Your task to perform on an android device: toggle airplane mode Image 0: 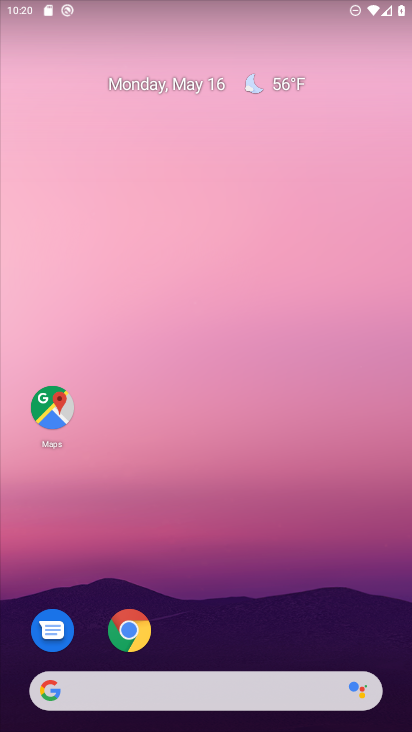
Step 0: drag from (230, 634) to (267, 47)
Your task to perform on an android device: toggle airplane mode Image 1: 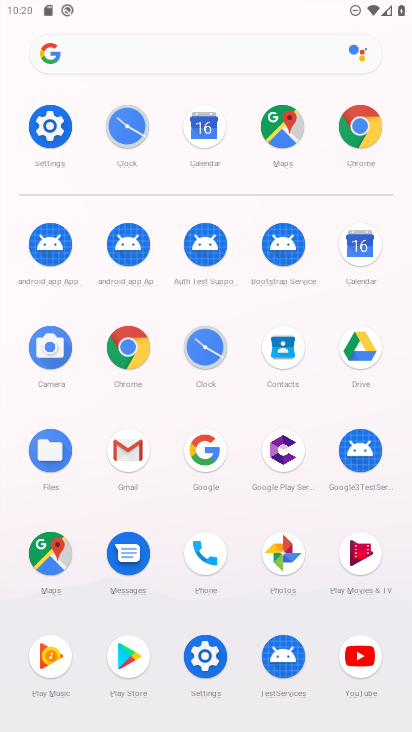
Step 1: click (63, 132)
Your task to perform on an android device: toggle airplane mode Image 2: 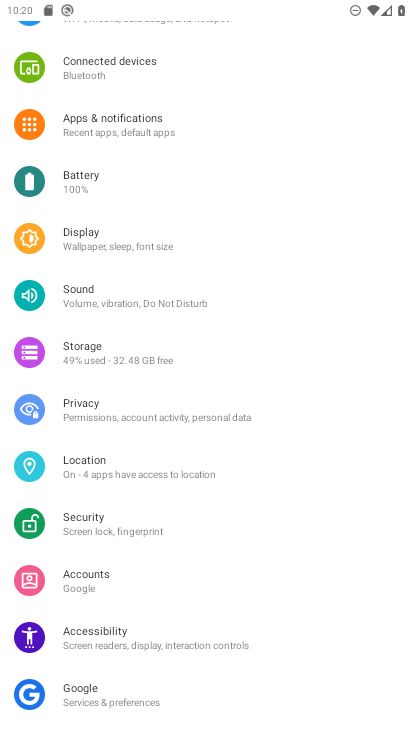
Step 2: drag from (134, 64) to (132, 277)
Your task to perform on an android device: toggle airplane mode Image 3: 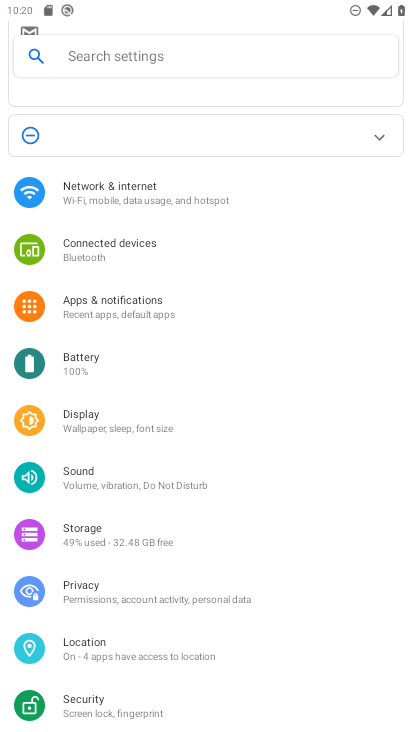
Step 3: click (119, 196)
Your task to perform on an android device: toggle airplane mode Image 4: 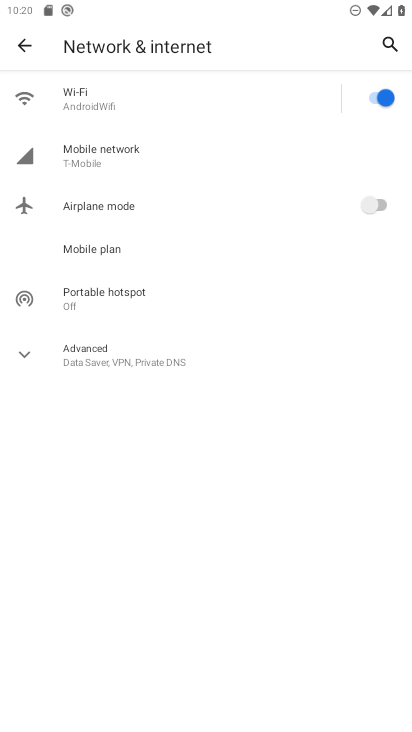
Step 4: click (382, 202)
Your task to perform on an android device: toggle airplane mode Image 5: 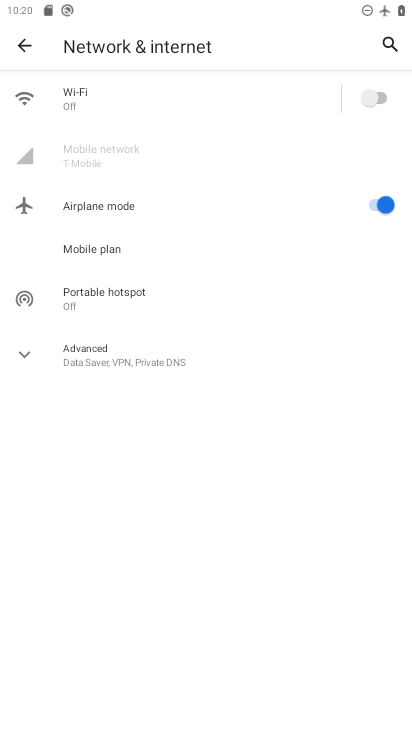
Step 5: task complete